Your task to perform on an android device: turn on notifications settings in the gmail app Image 0: 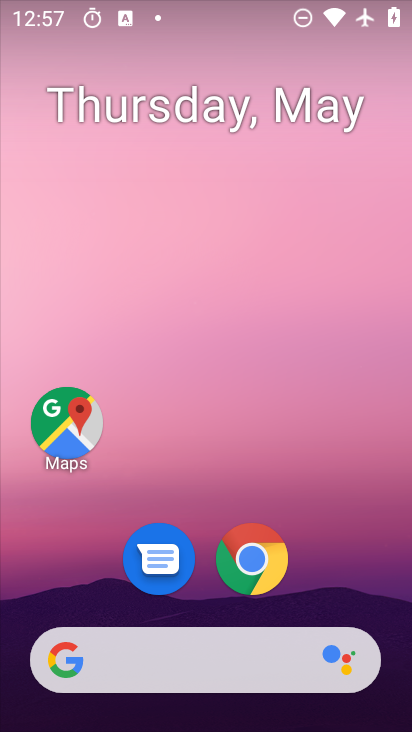
Step 0: drag from (176, 525) to (198, 138)
Your task to perform on an android device: turn on notifications settings in the gmail app Image 1: 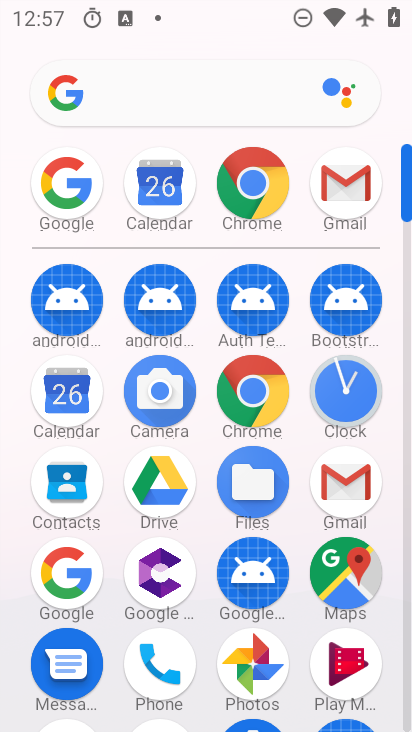
Step 1: click (341, 494)
Your task to perform on an android device: turn on notifications settings in the gmail app Image 2: 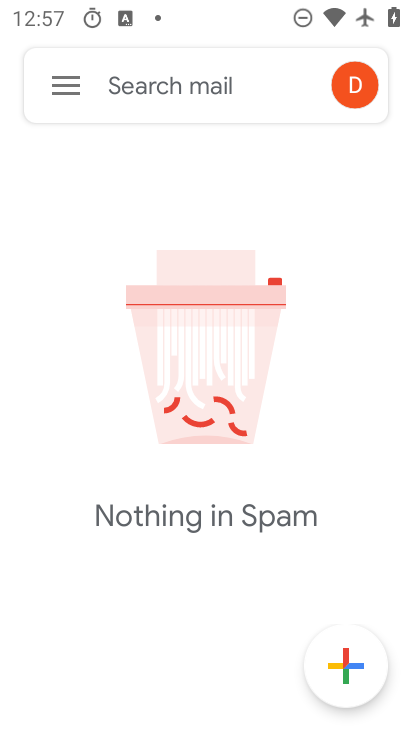
Step 2: click (65, 85)
Your task to perform on an android device: turn on notifications settings in the gmail app Image 3: 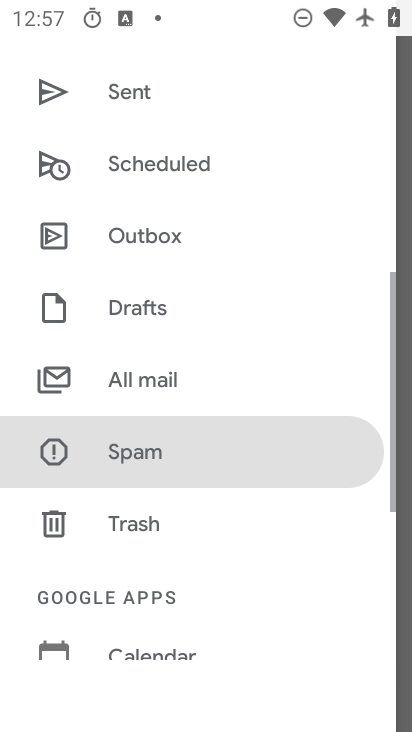
Step 3: drag from (167, 516) to (204, 158)
Your task to perform on an android device: turn on notifications settings in the gmail app Image 4: 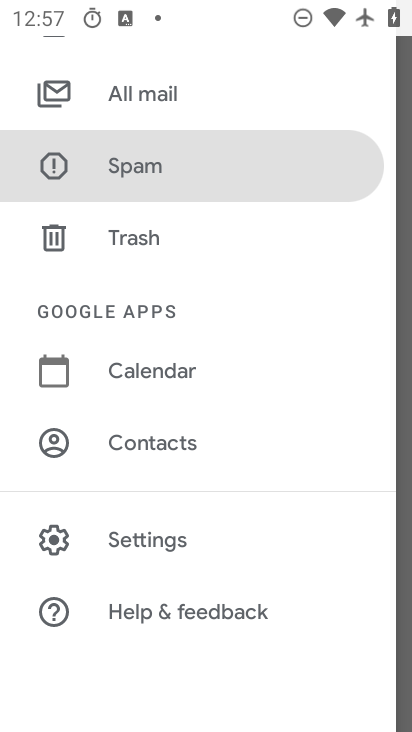
Step 4: click (185, 535)
Your task to perform on an android device: turn on notifications settings in the gmail app Image 5: 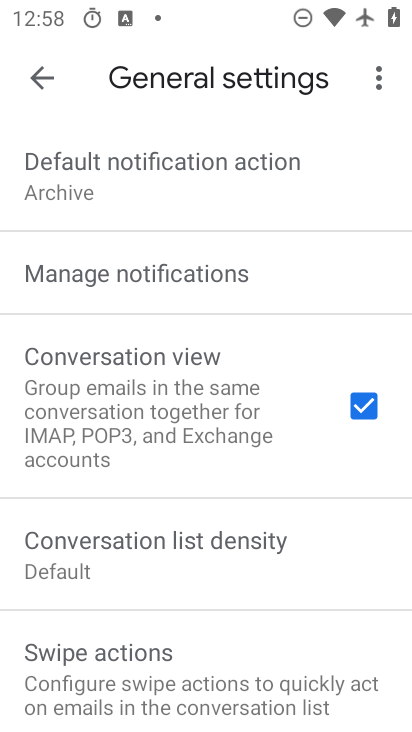
Step 5: click (104, 274)
Your task to perform on an android device: turn on notifications settings in the gmail app Image 6: 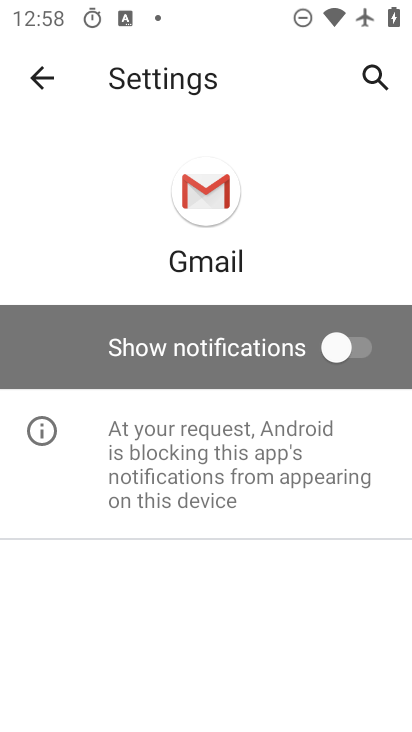
Step 6: click (360, 355)
Your task to perform on an android device: turn on notifications settings in the gmail app Image 7: 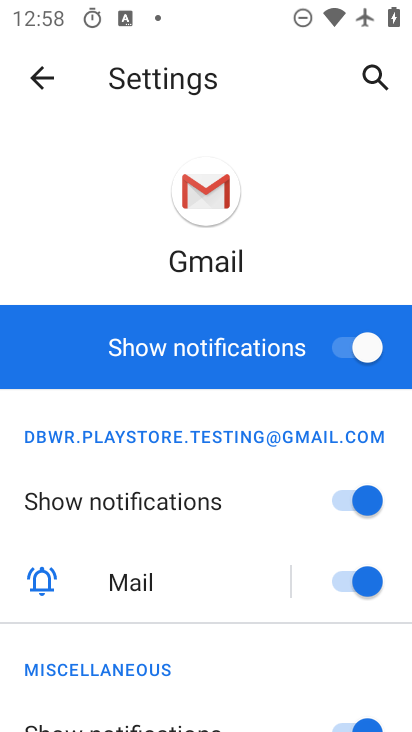
Step 7: task complete